Your task to perform on an android device: turn notification dots on Image 0: 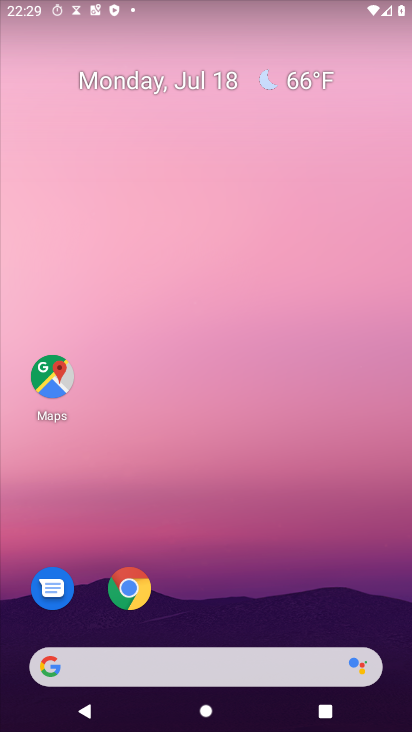
Step 0: drag from (152, 665) to (328, 87)
Your task to perform on an android device: turn notification dots on Image 1: 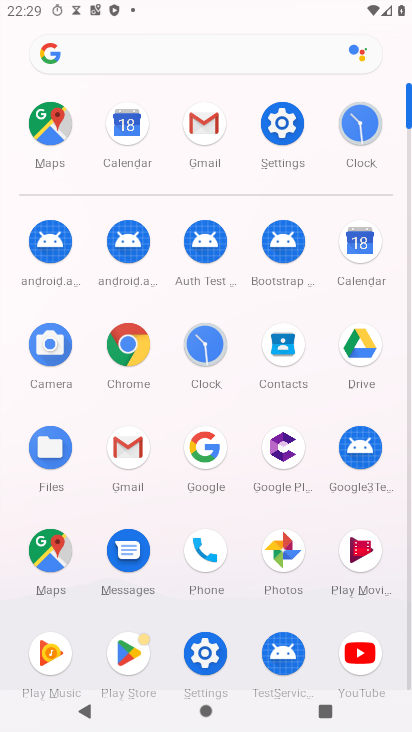
Step 1: click (281, 132)
Your task to perform on an android device: turn notification dots on Image 2: 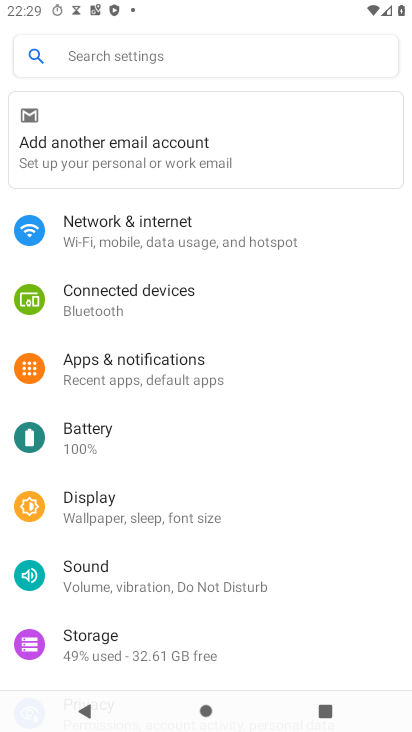
Step 2: click (202, 373)
Your task to perform on an android device: turn notification dots on Image 3: 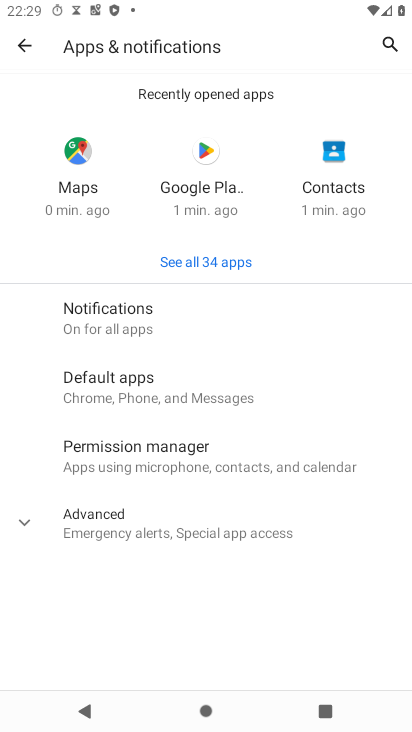
Step 3: click (124, 313)
Your task to perform on an android device: turn notification dots on Image 4: 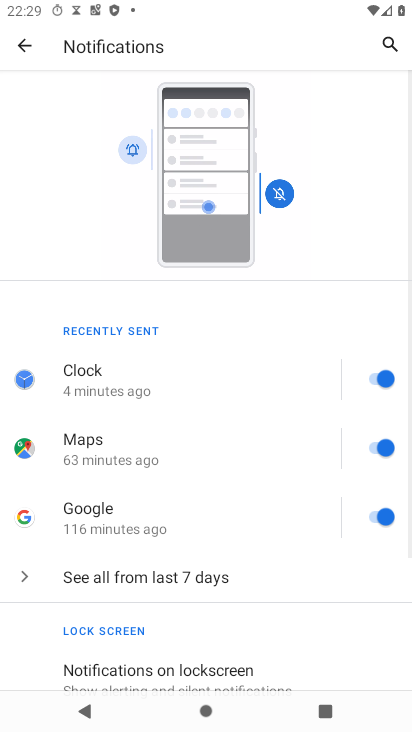
Step 4: drag from (229, 601) to (368, 66)
Your task to perform on an android device: turn notification dots on Image 5: 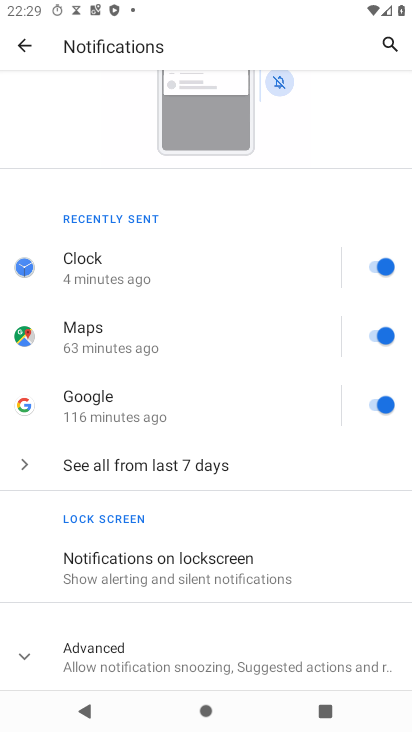
Step 5: click (147, 649)
Your task to perform on an android device: turn notification dots on Image 6: 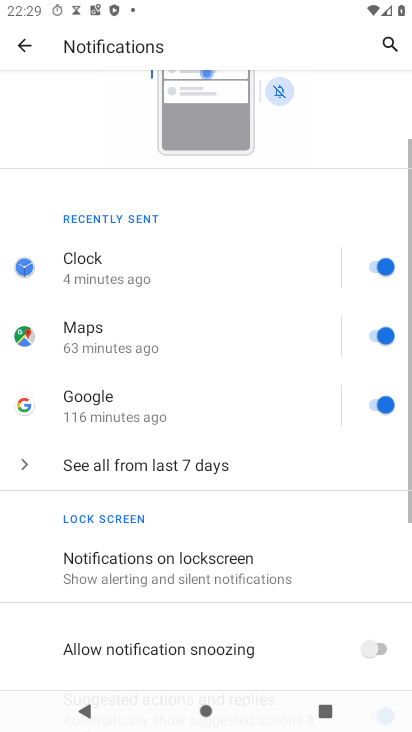
Step 6: task complete